Your task to perform on an android device: Open Amazon Image 0: 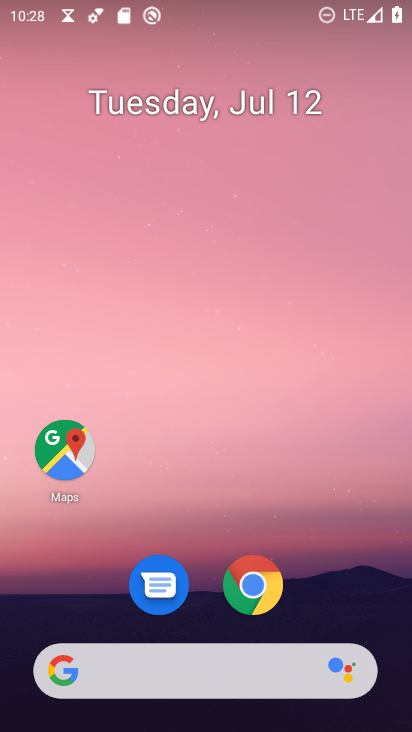
Step 0: press home button
Your task to perform on an android device: Open Amazon Image 1: 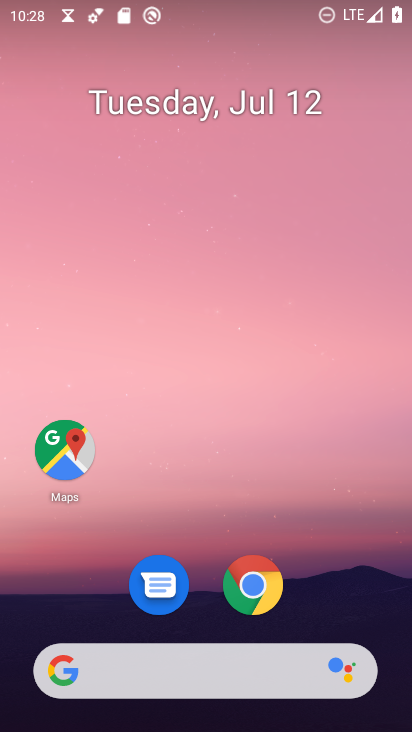
Step 1: click (256, 570)
Your task to perform on an android device: Open Amazon Image 2: 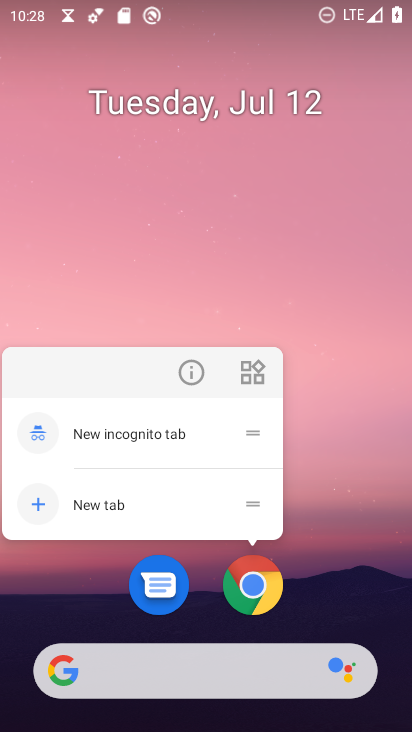
Step 2: click (250, 581)
Your task to perform on an android device: Open Amazon Image 3: 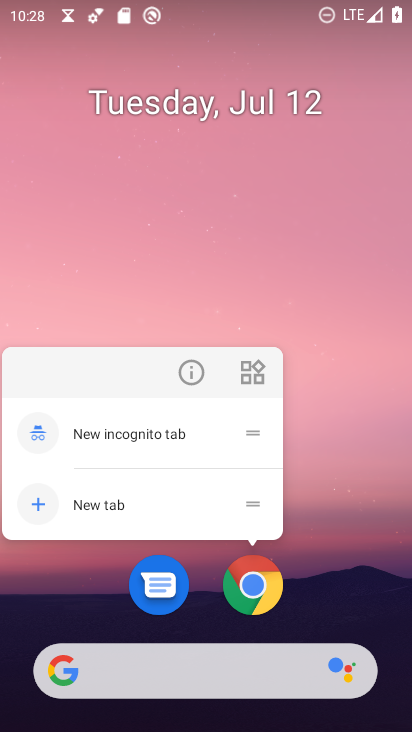
Step 3: click (250, 582)
Your task to perform on an android device: Open Amazon Image 4: 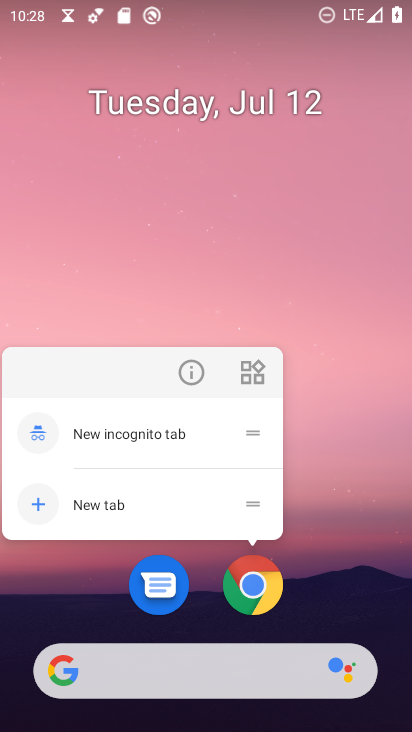
Step 4: click (250, 581)
Your task to perform on an android device: Open Amazon Image 5: 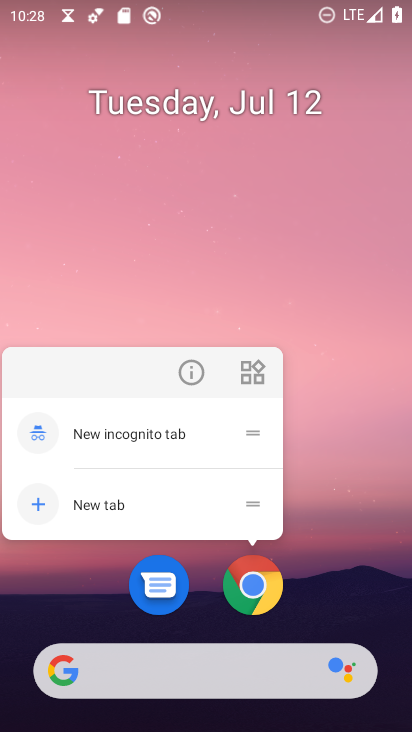
Step 5: click (250, 583)
Your task to perform on an android device: Open Amazon Image 6: 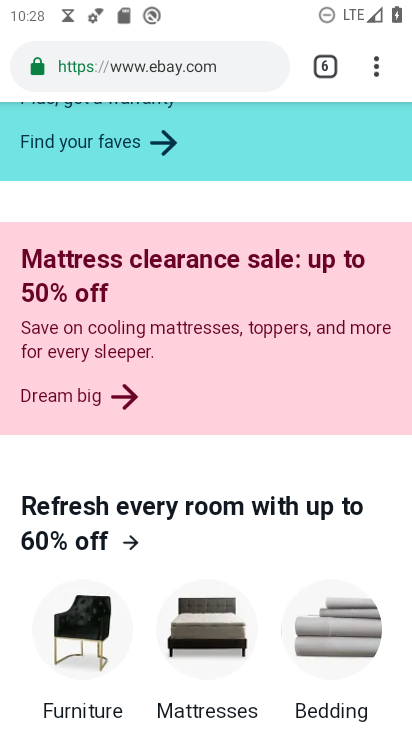
Step 6: drag from (370, 68) to (196, 131)
Your task to perform on an android device: Open Amazon Image 7: 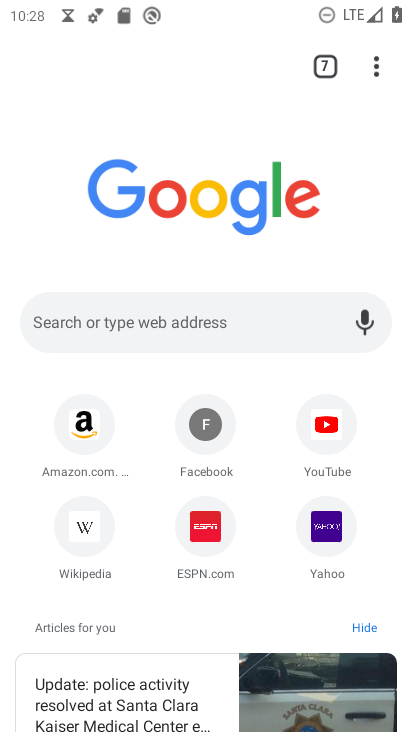
Step 7: click (79, 428)
Your task to perform on an android device: Open Amazon Image 8: 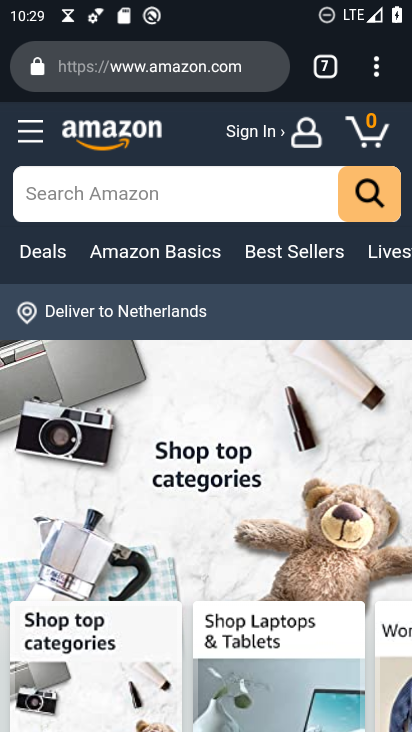
Step 8: task complete